Your task to perform on an android device: Open Yahoo.com Image 0: 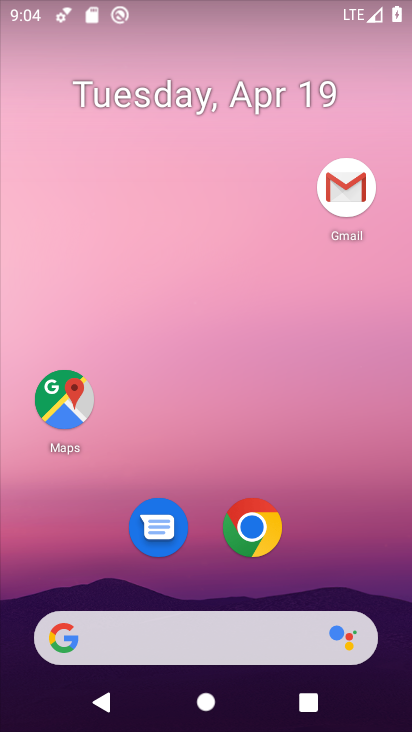
Step 0: drag from (340, 549) to (335, 105)
Your task to perform on an android device: Open Yahoo.com Image 1: 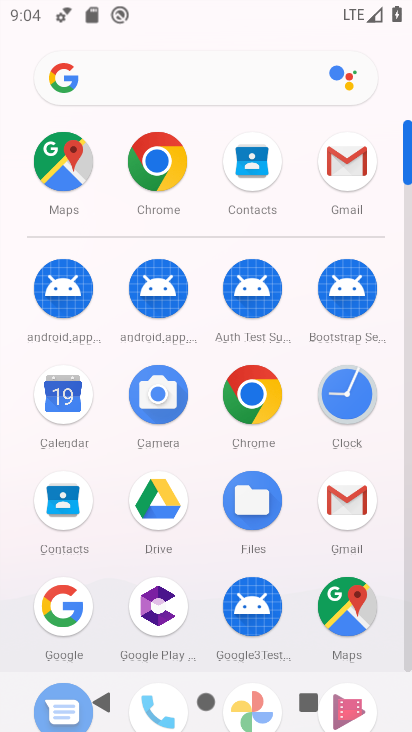
Step 1: click (243, 407)
Your task to perform on an android device: Open Yahoo.com Image 2: 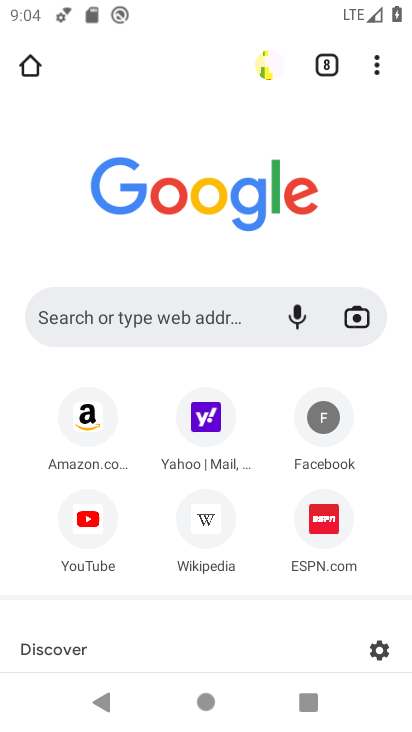
Step 2: click (215, 428)
Your task to perform on an android device: Open Yahoo.com Image 3: 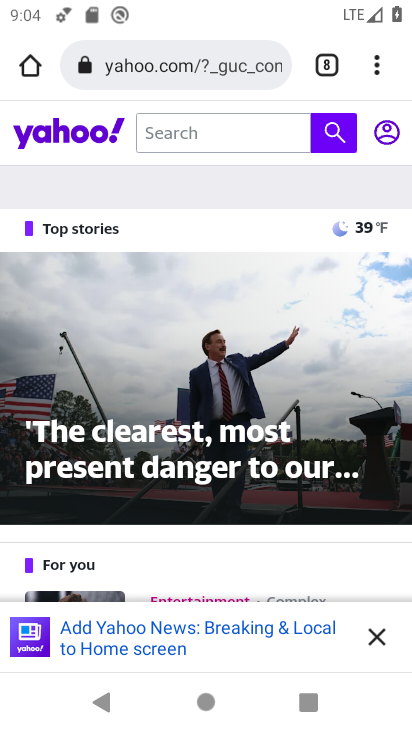
Step 3: task complete